Your task to perform on an android device: What's the weather today? Image 0: 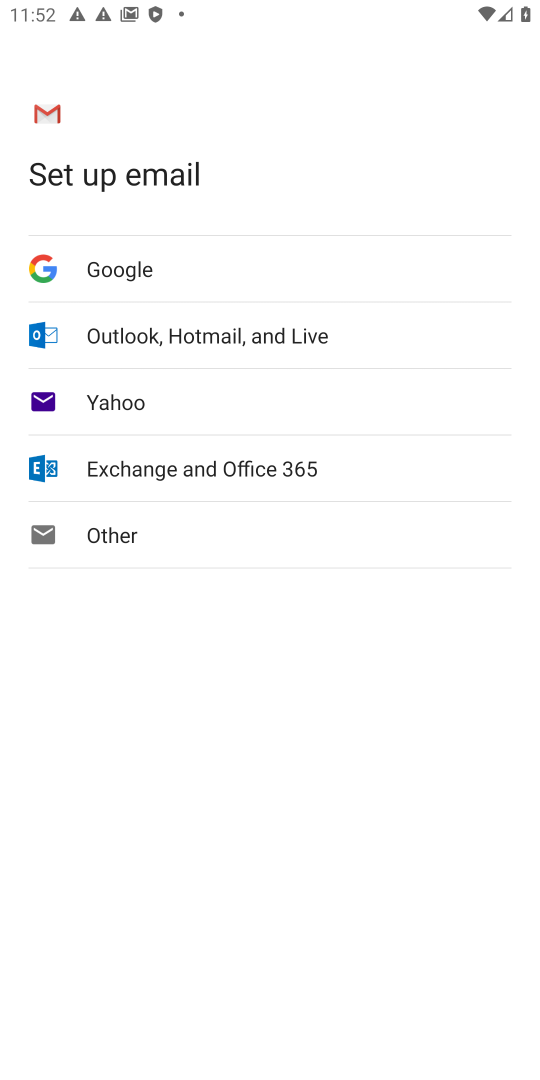
Step 0: press home button
Your task to perform on an android device: What's the weather today? Image 1: 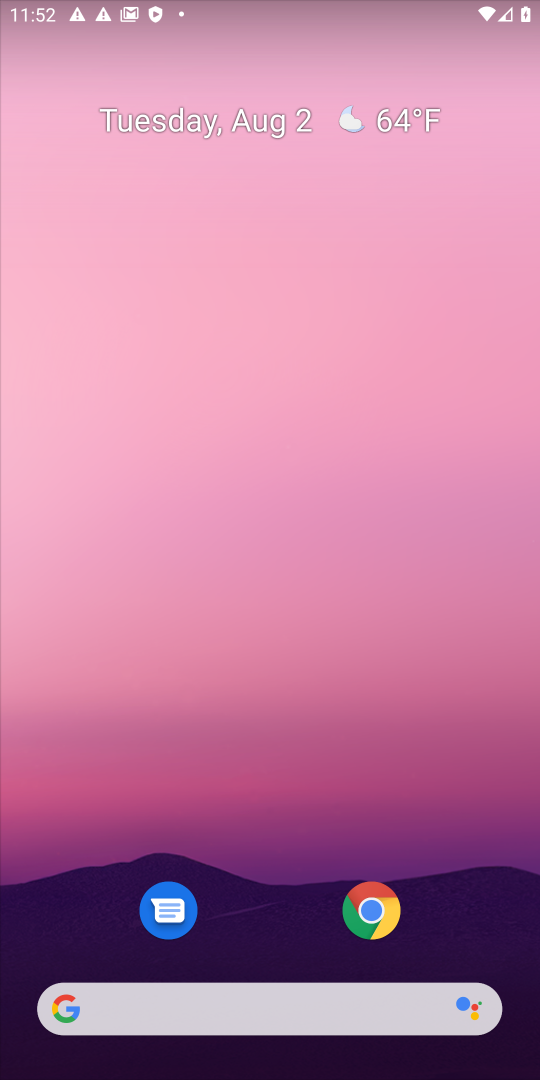
Step 1: click (393, 126)
Your task to perform on an android device: What's the weather today? Image 2: 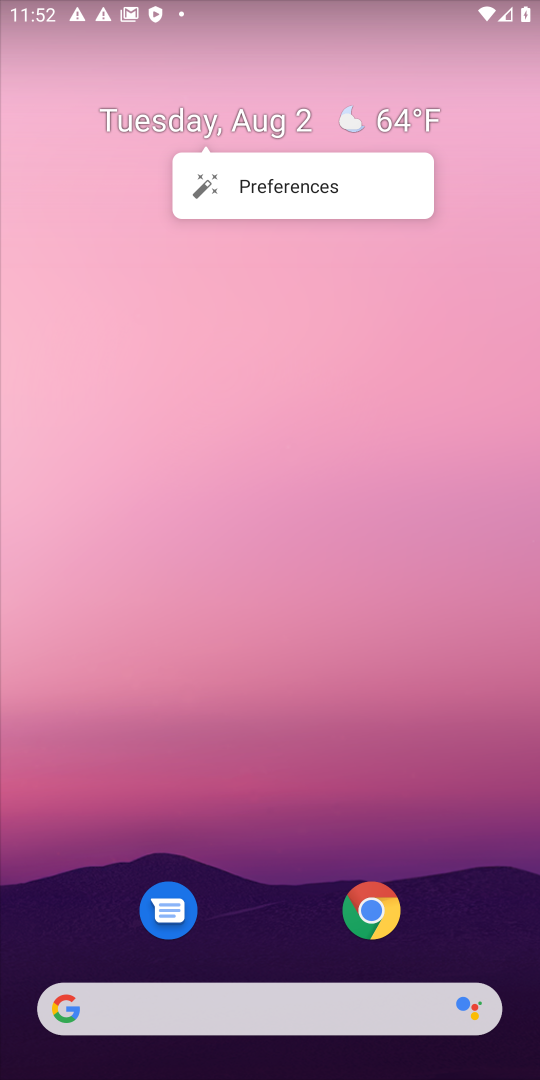
Step 2: click (412, 125)
Your task to perform on an android device: What's the weather today? Image 3: 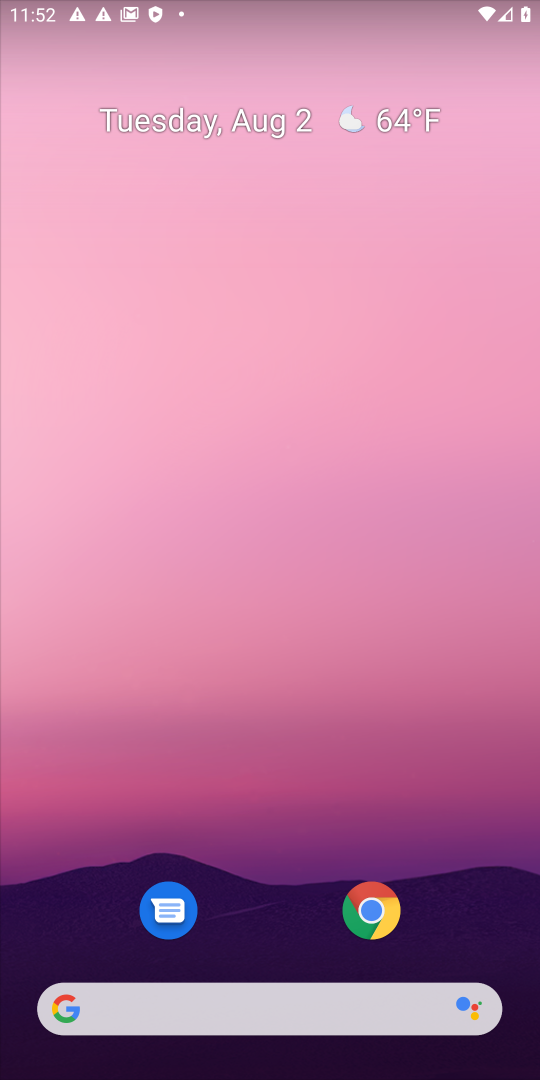
Step 3: click (391, 126)
Your task to perform on an android device: What's the weather today? Image 4: 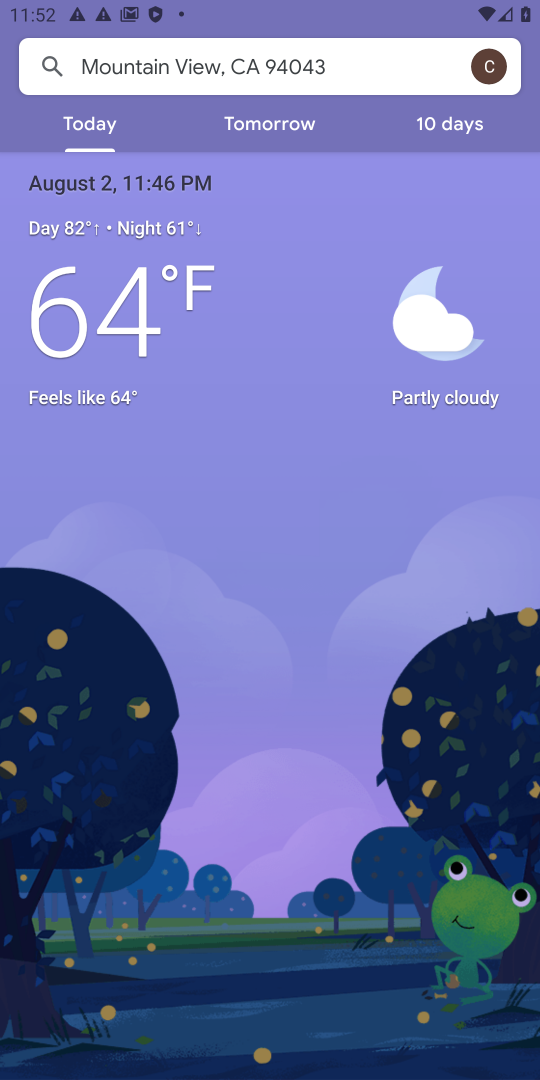
Step 4: task complete